Your task to perform on an android device: Go to accessibility settings Image 0: 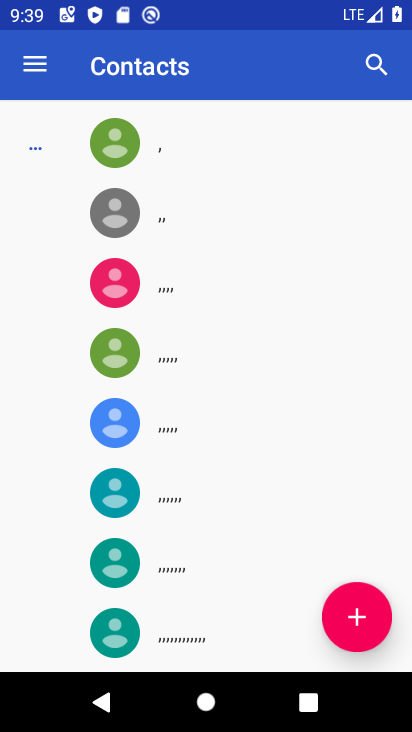
Step 0: press home button
Your task to perform on an android device: Go to accessibility settings Image 1: 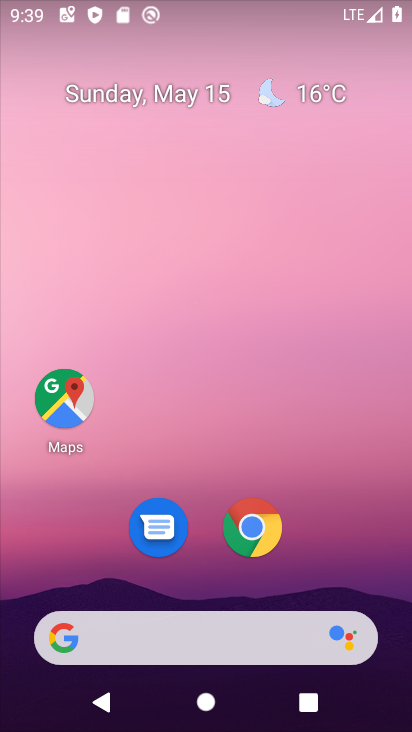
Step 1: drag from (364, 601) to (408, 15)
Your task to perform on an android device: Go to accessibility settings Image 2: 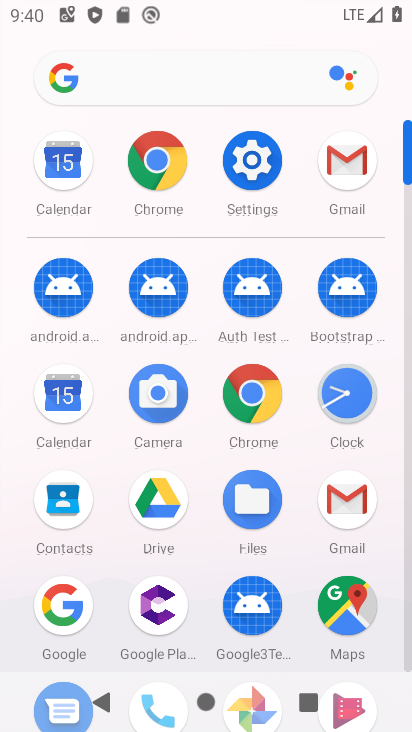
Step 2: click (248, 153)
Your task to perform on an android device: Go to accessibility settings Image 3: 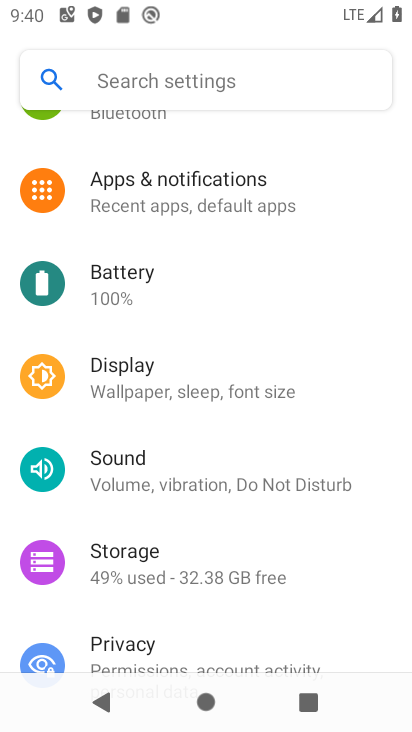
Step 3: drag from (361, 573) to (357, 182)
Your task to perform on an android device: Go to accessibility settings Image 4: 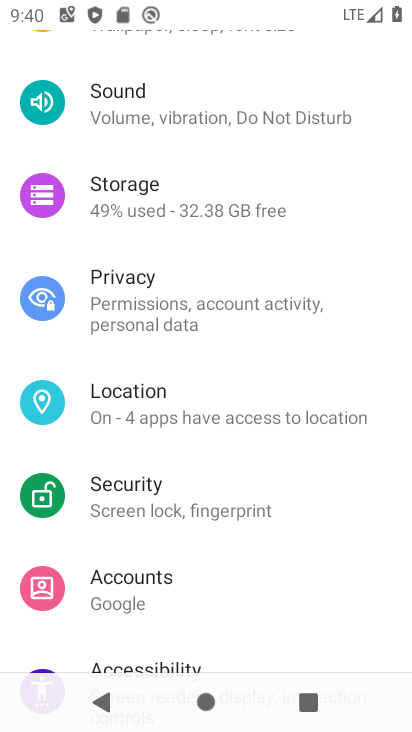
Step 4: drag from (315, 565) to (336, 91)
Your task to perform on an android device: Go to accessibility settings Image 5: 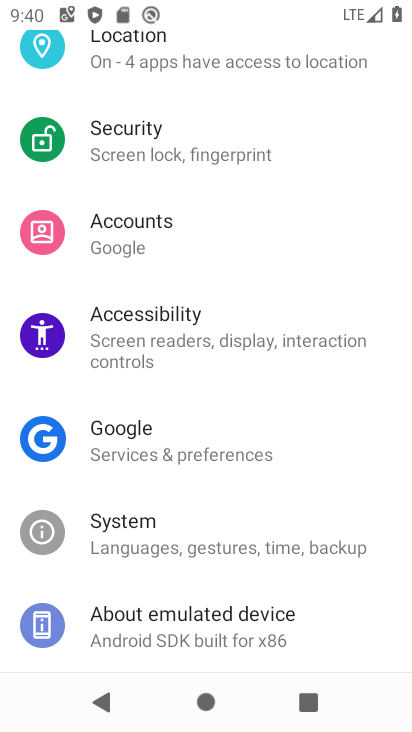
Step 5: click (109, 342)
Your task to perform on an android device: Go to accessibility settings Image 6: 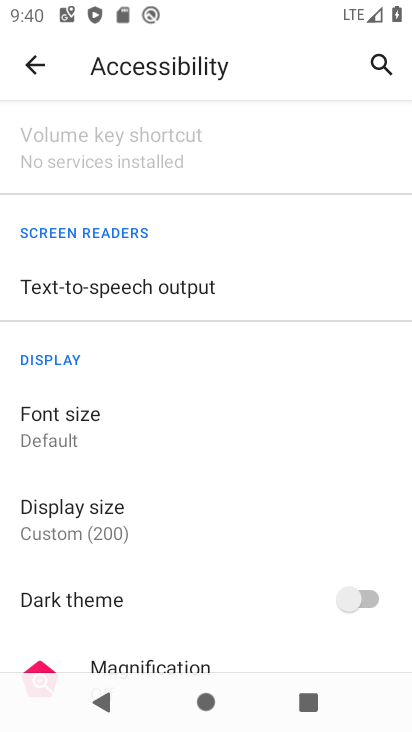
Step 6: task complete